Your task to perform on an android device: change the clock style Image 0: 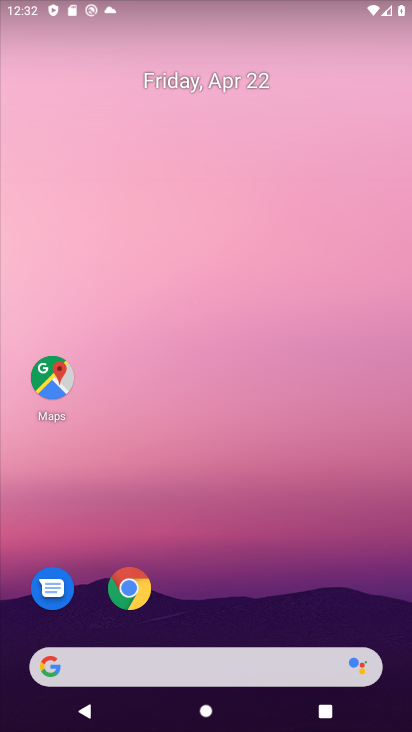
Step 0: drag from (233, 699) to (263, 209)
Your task to perform on an android device: change the clock style Image 1: 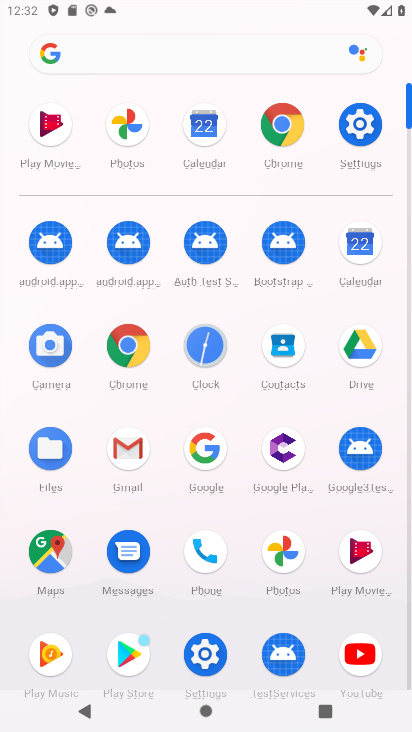
Step 1: click (192, 334)
Your task to perform on an android device: change the clock style Image 2: 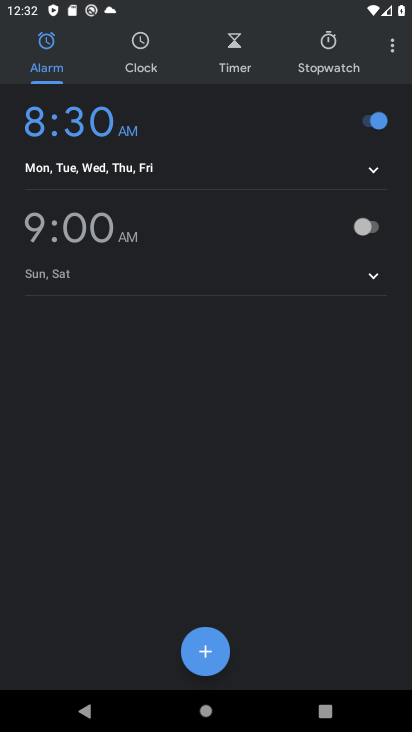
Step 2: click (384, 47)
Your task to perform on an android device: change the clock style Image 3: 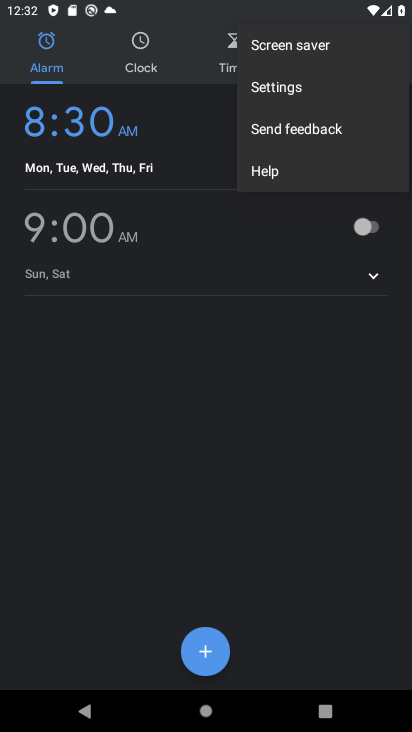
Step 3: click (293, 88)
Your task to perform on an android device: change the clock style Image 4: 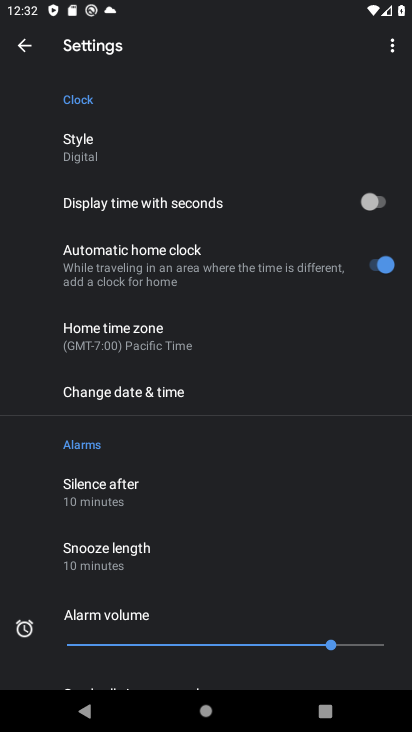
Step 4: click (151, 155)
Your task to perform on an android device: change the clock style Image 5: 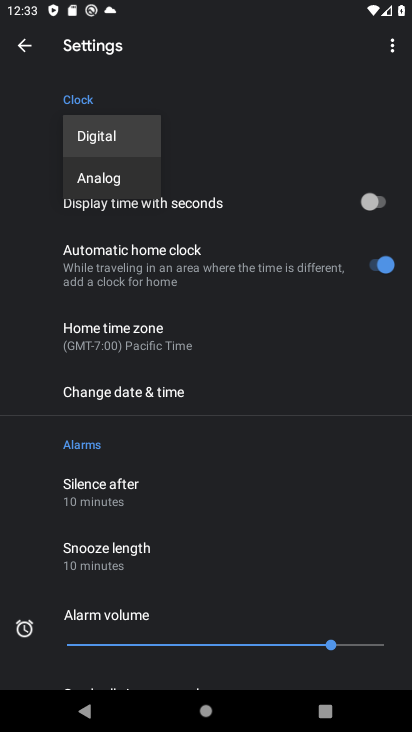
Step 5: click (112, 190)
Your task to perform on an android device: change the clock style Image 6: 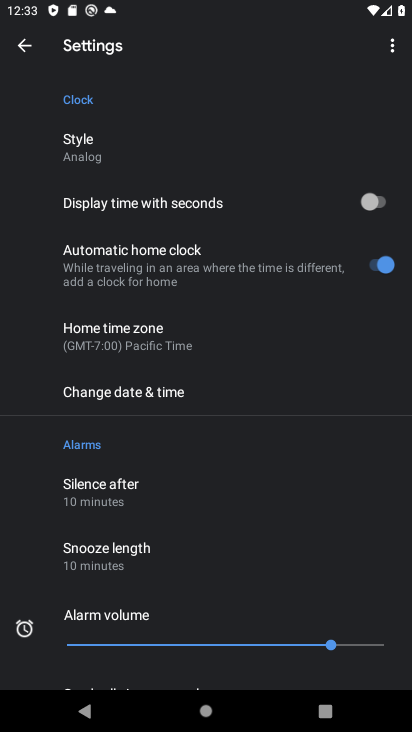
Step 6: task complete